Your task to perform on an android device: Play the last video I watched on Youtube Image 0: 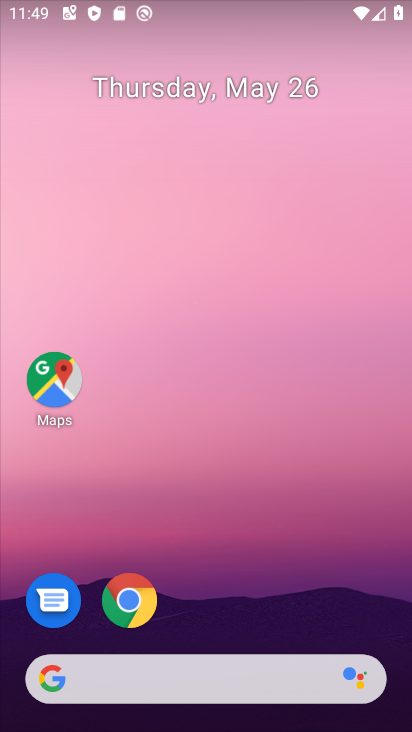
Step 0: drag from (254, 623) to (384, 27)
Your task to perform on an android device: Play the last video I watched on Youtube Image 1: 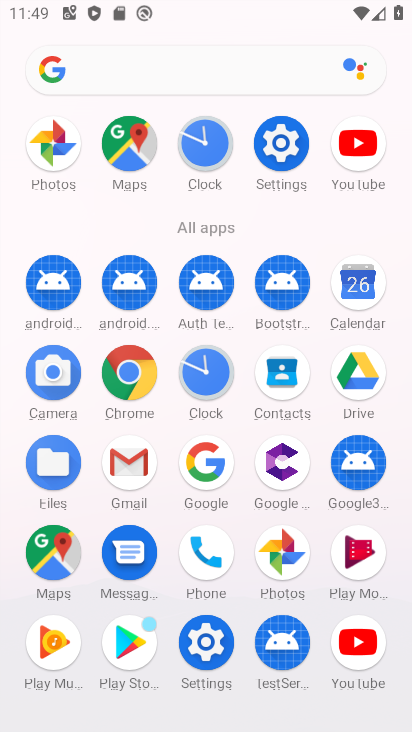
Step 1: click (353, 642)
Your task to perform on an android device: Play the last video I watched on Youtube Image 2: 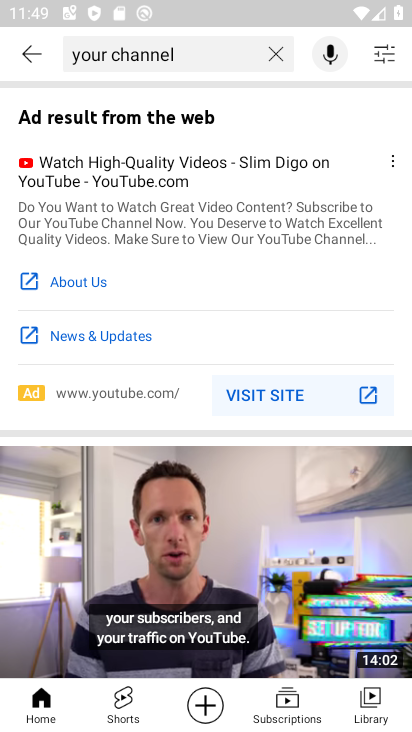
Step 2: click (377, 703)
Your task to perform on an android device: Play the last video I watched on Youtube Image 3: 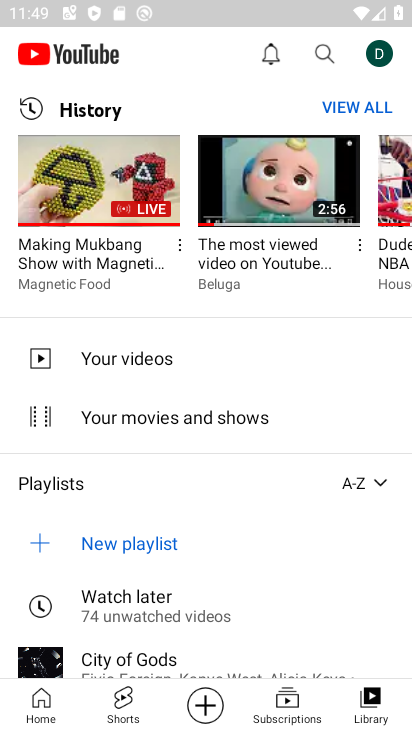
Step 3: click (113, 206)
Your task to perform on an android device: Play the last video I watched on Youtube Image 4: 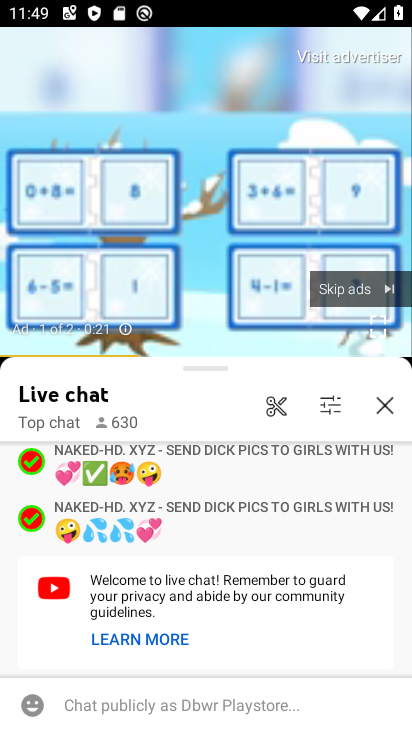
Step 4: click (386, 278)
Your task to perform on an android device: Play the last video I watched on Youtube Image 5: 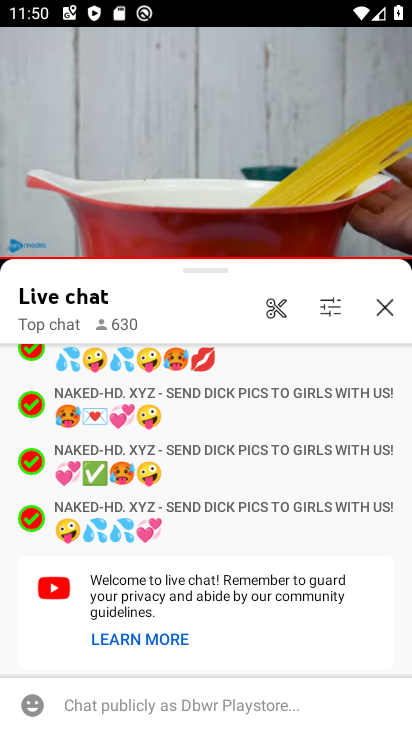
Step 5: task complete